Your task to perform on an android device: Go to Android settings Image 0: 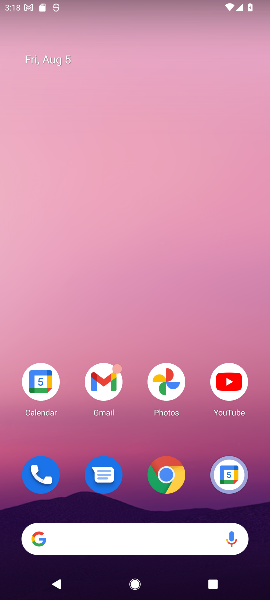
Step 0: drag from (261, 586) to (181, 110)
Your task to perform on an android device: Go to Android settings Image 1: 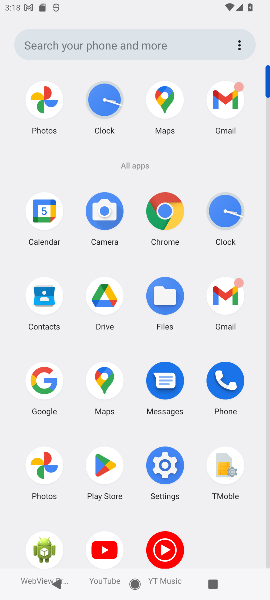
Step 1: drag from (155, 460) to (202, 312)
Your task to perform on an android device: Go to Android settings Image 2: 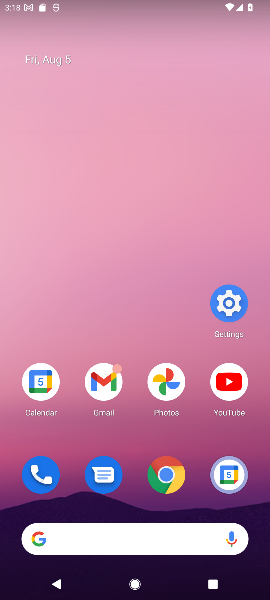
Step 2: click (232, 279)
Your task to perform on an android device: Go to Android settings Image 3: 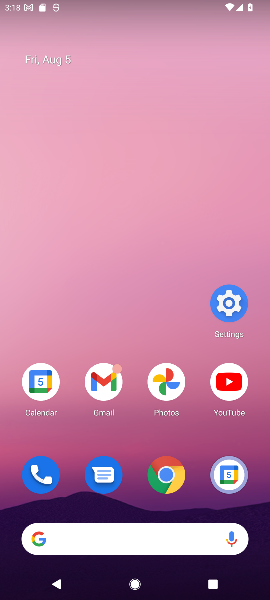
Step 3: click (223, 294)
Your task to perform on an android device: Go to Android settings Image 4: 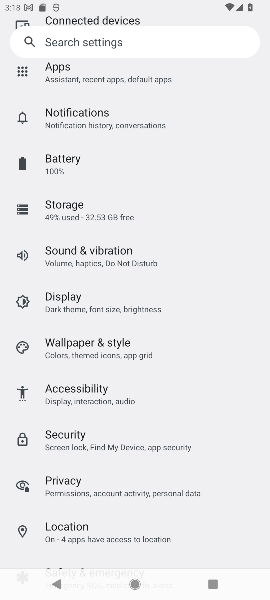
Step 4: task complete